Your task to perform on an android device: Open Google Chrome and open the bookmarks view Image 0: 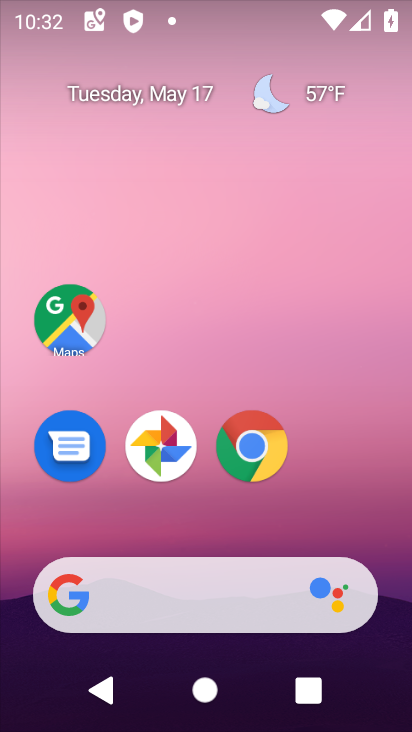
Step 0: click (252, 459)
Your task to perform on an android device: Open Google Chrome and open the bookmarks view Image 1: 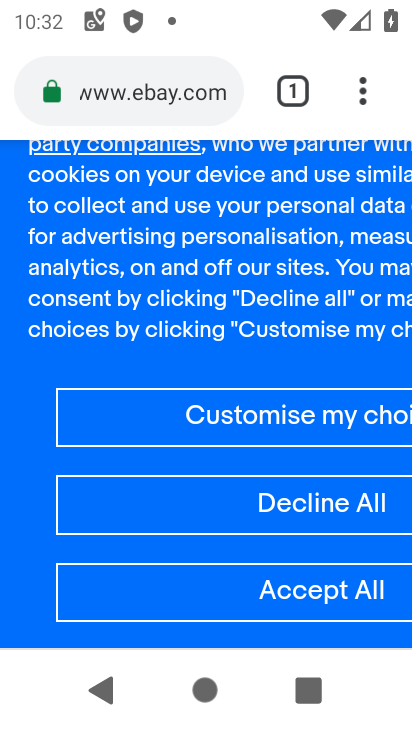
Step 1: task complete